Your task to perform on an android device: toggle translation in the chrome app Image 0: 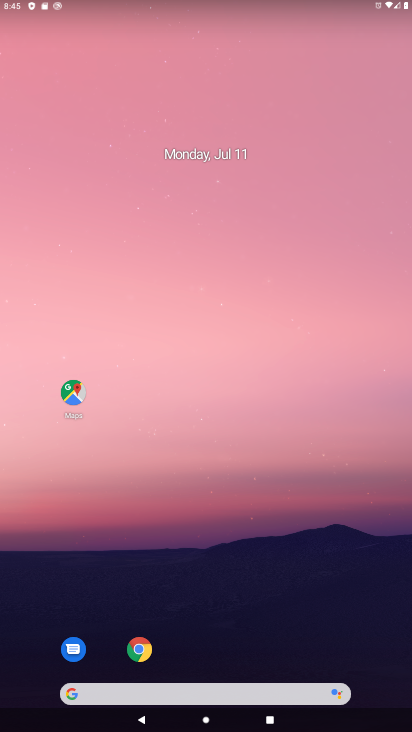
Step 0: click (140, 648)
Your task to perform on an android device: toggle translation in the chrome app Image 1: 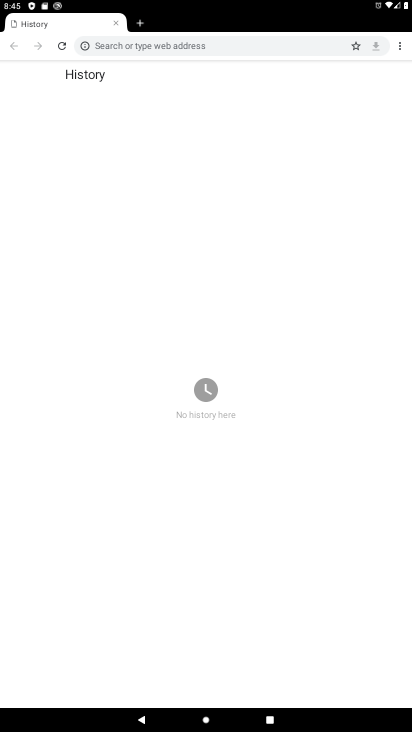
Step 1: click (401, 41)
Your task to perform on an android device: toggle translation in the chrome app Image 2: 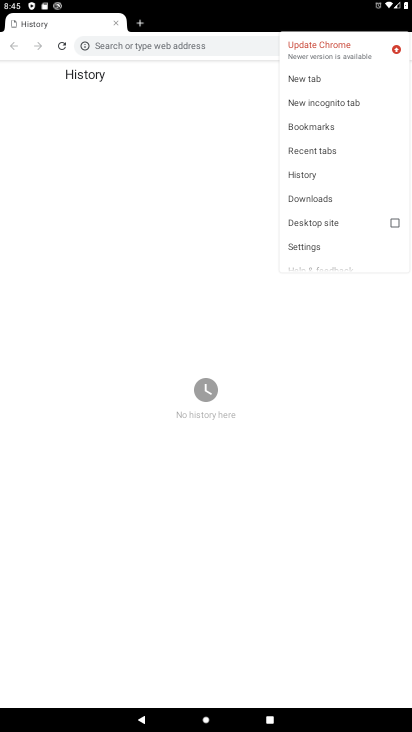
Step 2: click (305, 244)
Your task to perform on an android device: toggle translation in the chrome app Image 3: 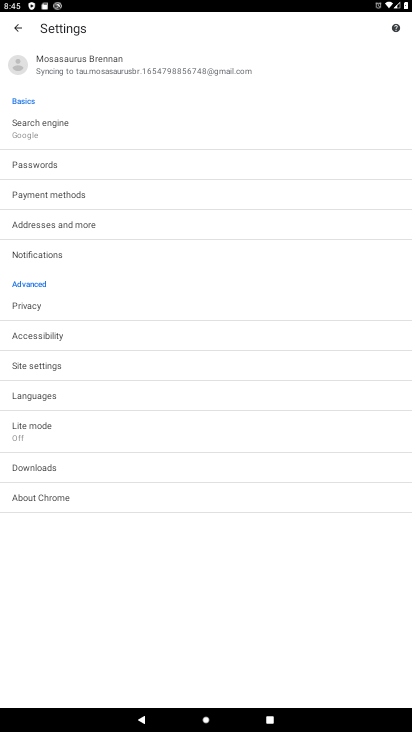
Step 3: click (30, 397)
Your task to perform on an android device: toggle translation in the chrome app Image 4: 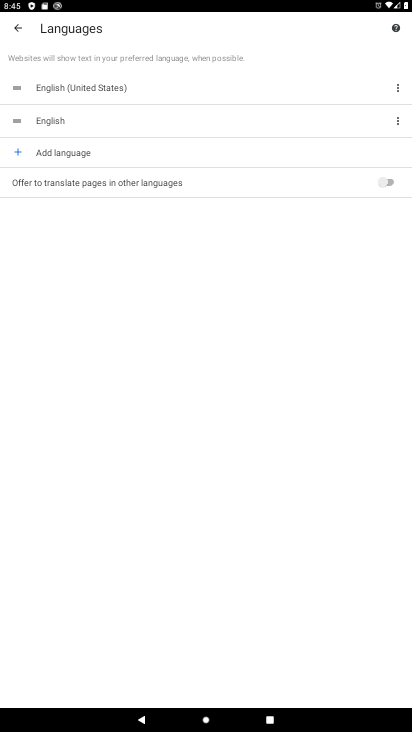
Step 4: click (387, 179)
Your task to perform on an android device: toggle translation in the chrome app Image 5: 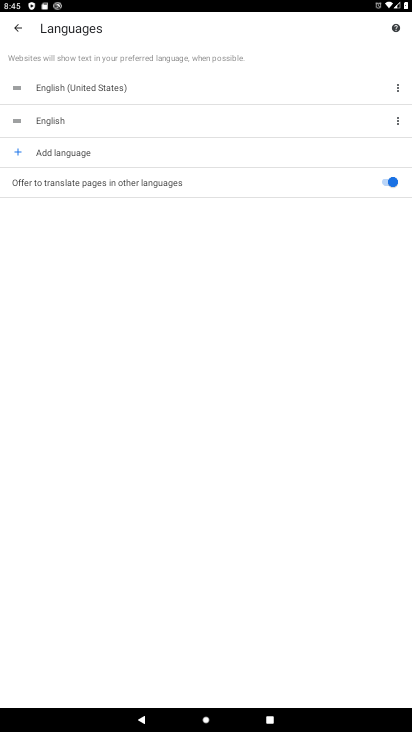
Step 5: task complete